Your task to perform on an android device: Clear the shopping cart on walmart.com. Search for usb-c to usb-a on walmart.com, select the first entry, add it to the cart, then select checkout. Image 0: 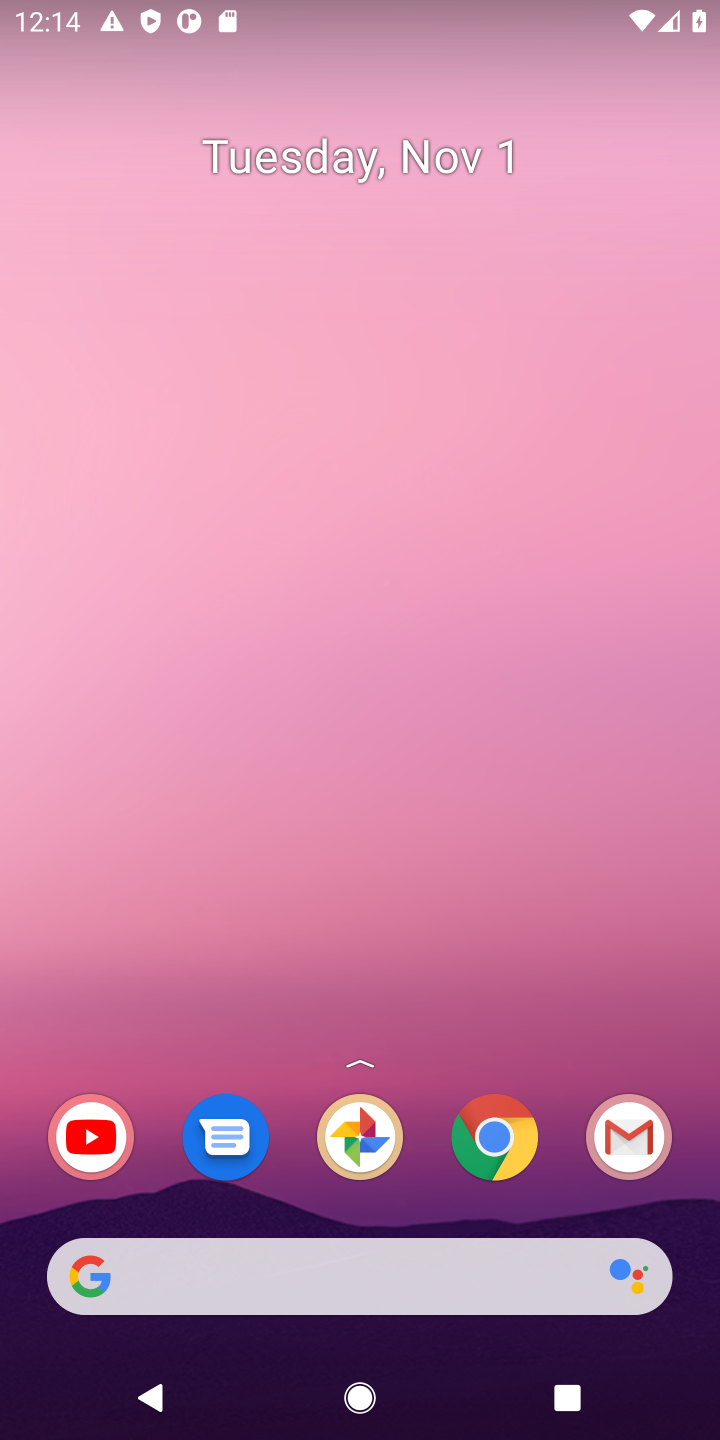
Step 0: click (479, 1129)
Your task to perform on an android device: Clear the shopping cart on walmart.com. Search for usb-c to usb-a on walmart.com, select the first entry, add it to the cart, then select checkout. Image 1: 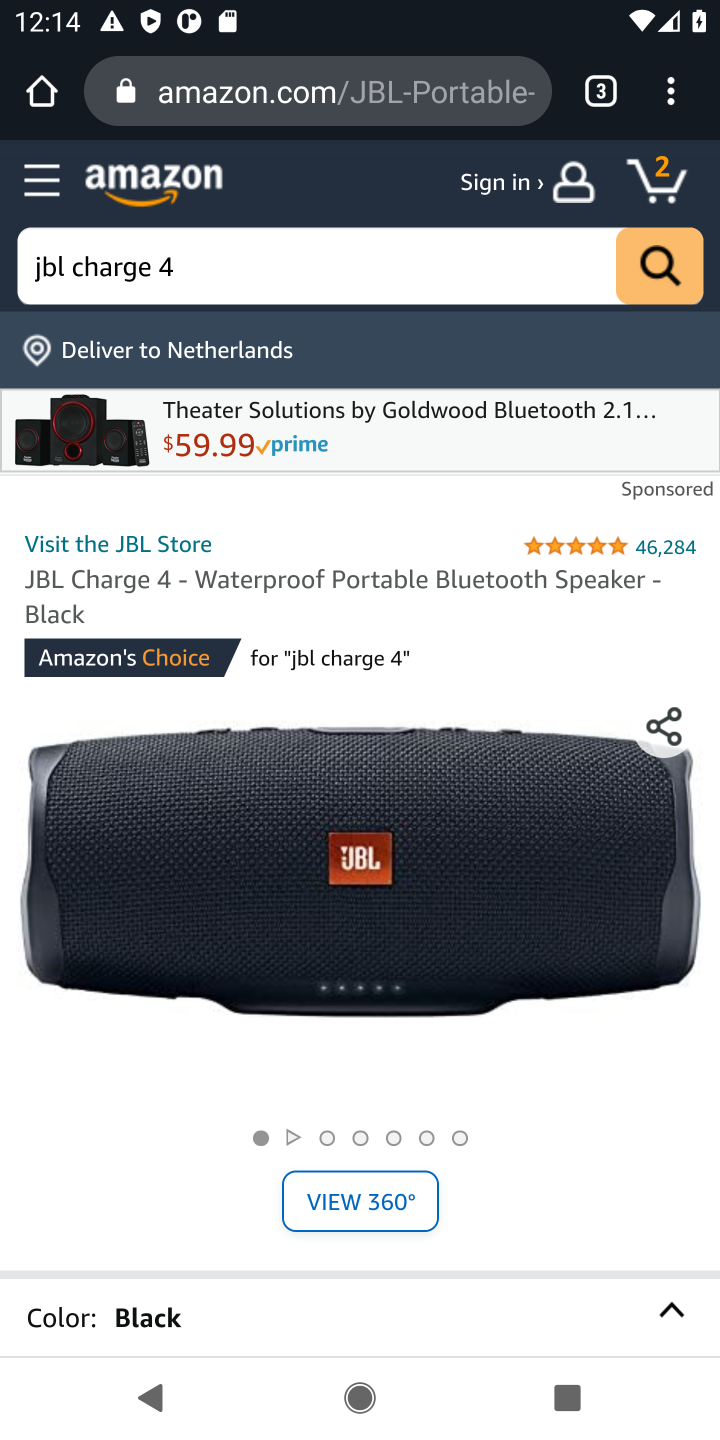
Step 1: click (606, 97)
Your task to perform on an android device: Clear the shopping cart on walmart.com. Search for usb-c to usb-a on walmart.com, select the first entry, add it to the cart, then select checkout. Image 2: 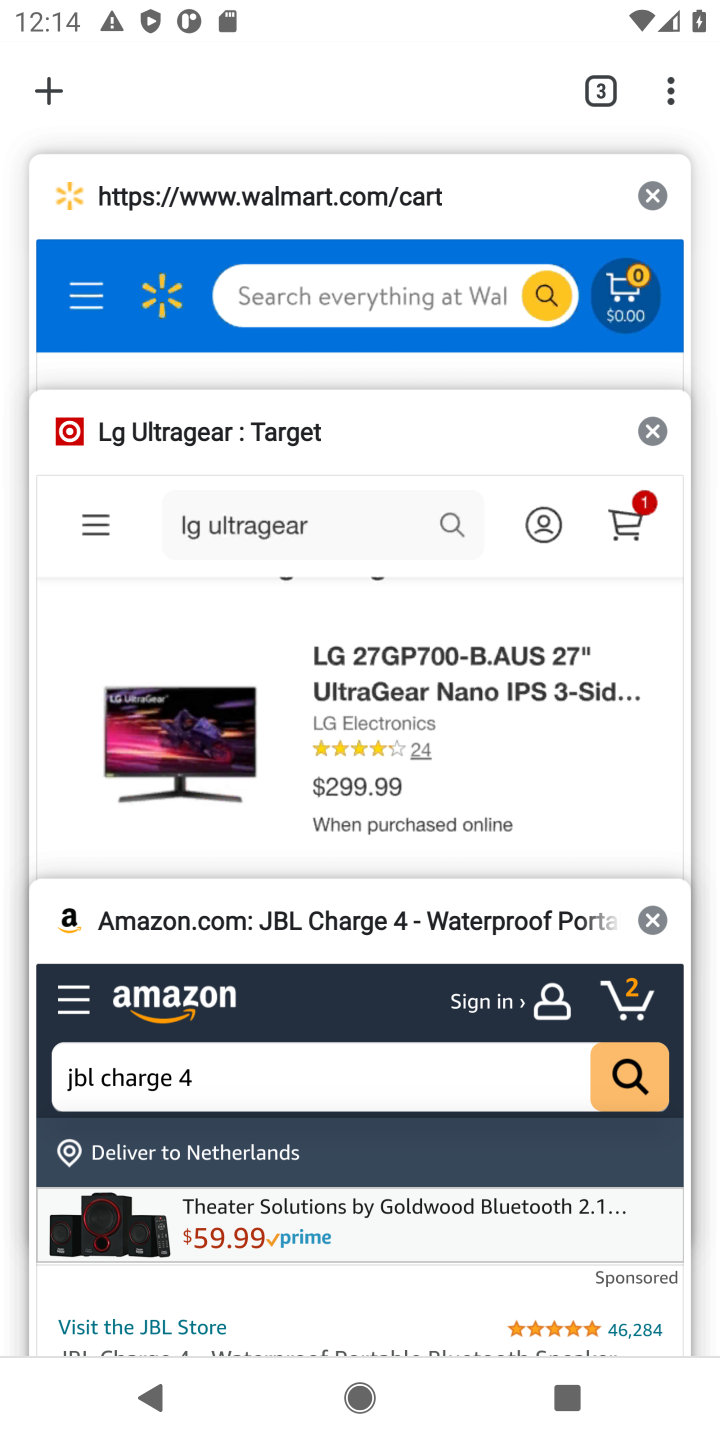
Step 2: click (266, 316)
Your task to perform on an android device: Clear the shopping cart on walmart.com. Search for usb-c to usb-a on walmart.com, select the first entry, add it to the cart, then select checkout. Image 3: 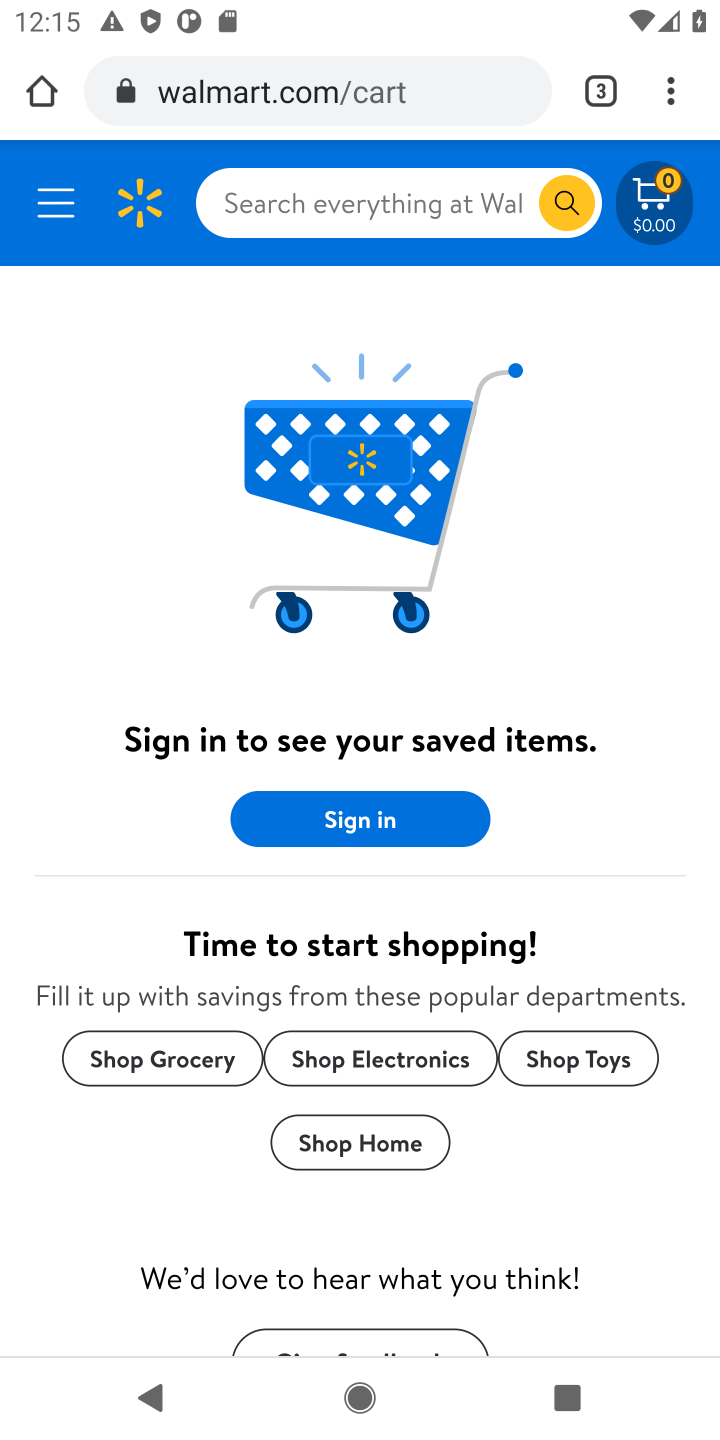
Step 3: click (354, 202)
Your task to perform on an android device: Clear the shopping cart on walmart.com. Search for usb-c to usb-a on walmart.com, select the first entry, add it to the cart, then select checkout. Image 4: 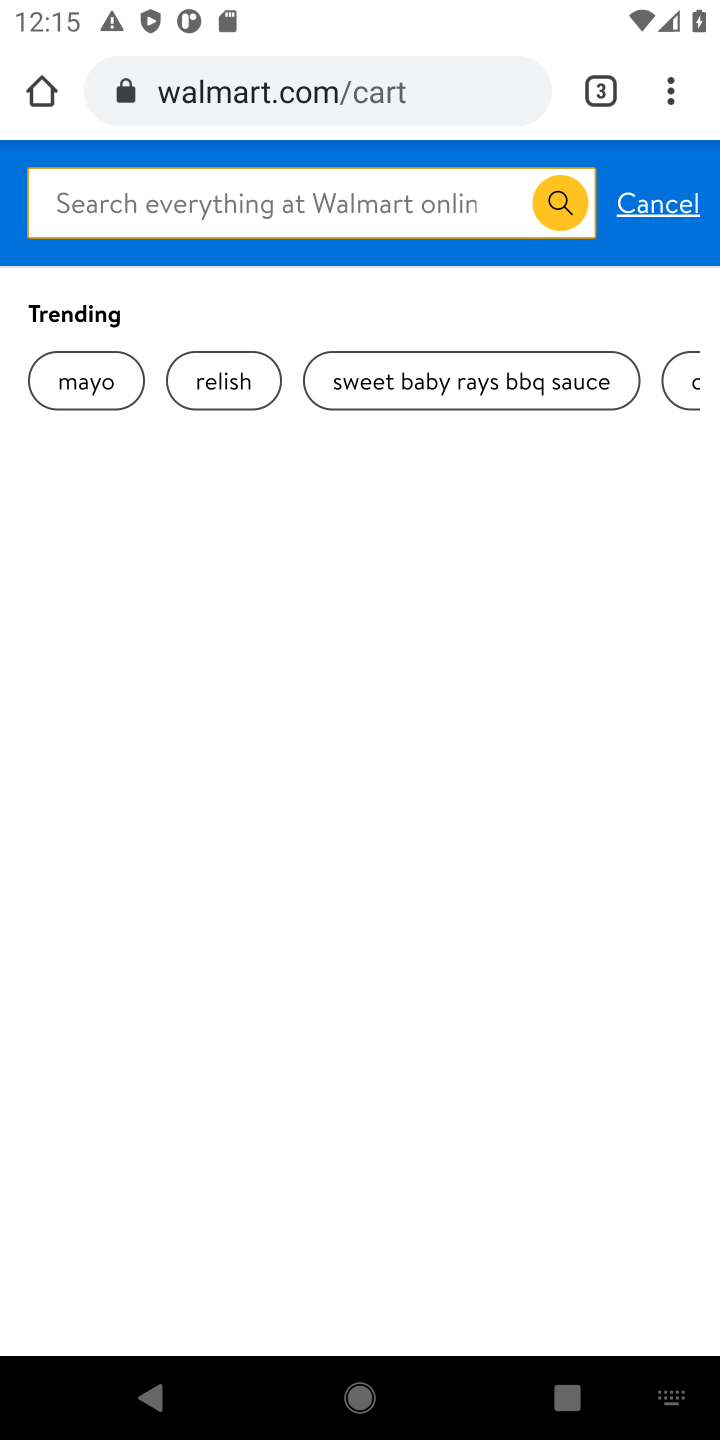
Step 4: type "usb-c usb-a"
Your task to perform on an android device: Clear the shopping cart on walmart.com. Search for usb-c to usb-a on walmart.com, select the first entry, add it to the cart, then select checkout. Image 5: 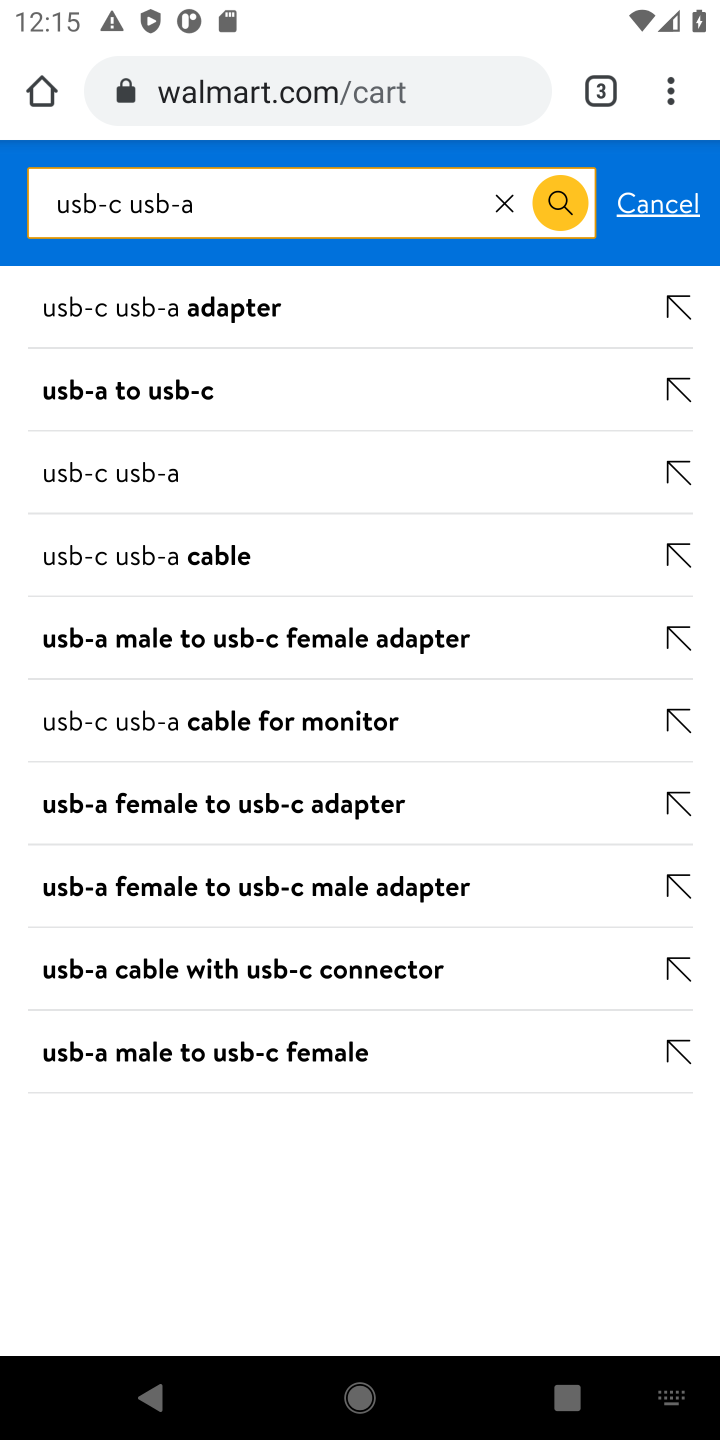
Step 5: click (205, 304)
Your task to perform on an android device: Clear the shopping cart on walmart.com. Search for usb-c to usb-a on walmart.com, select the first entry, add it to the cart, then select checkout. Image 6: 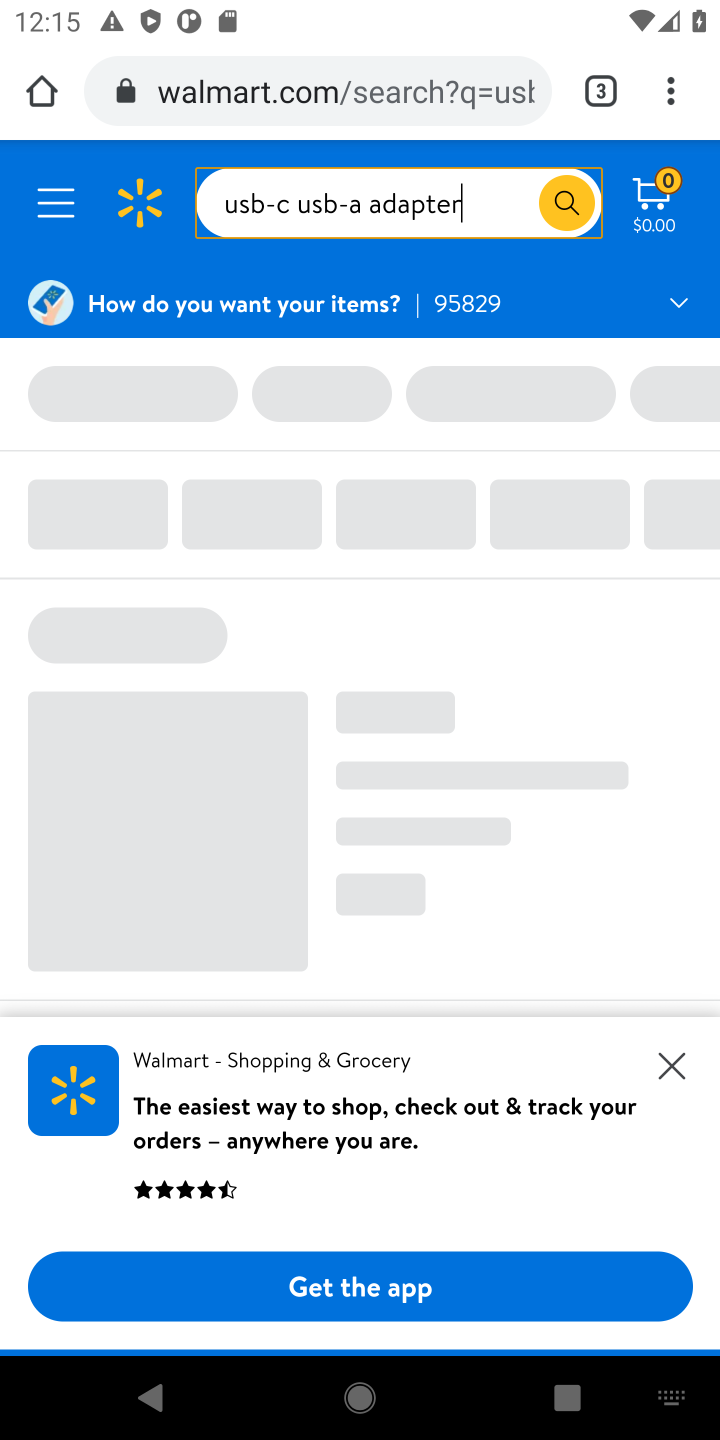
Step 6: click (680, 1064)
Your task to perform on an android device: Clear the shopping cart on walmart.com. Search for usb-c to usb-a on walmart.com, select the first entry, add it to the cart, then select checkout. Image 7: 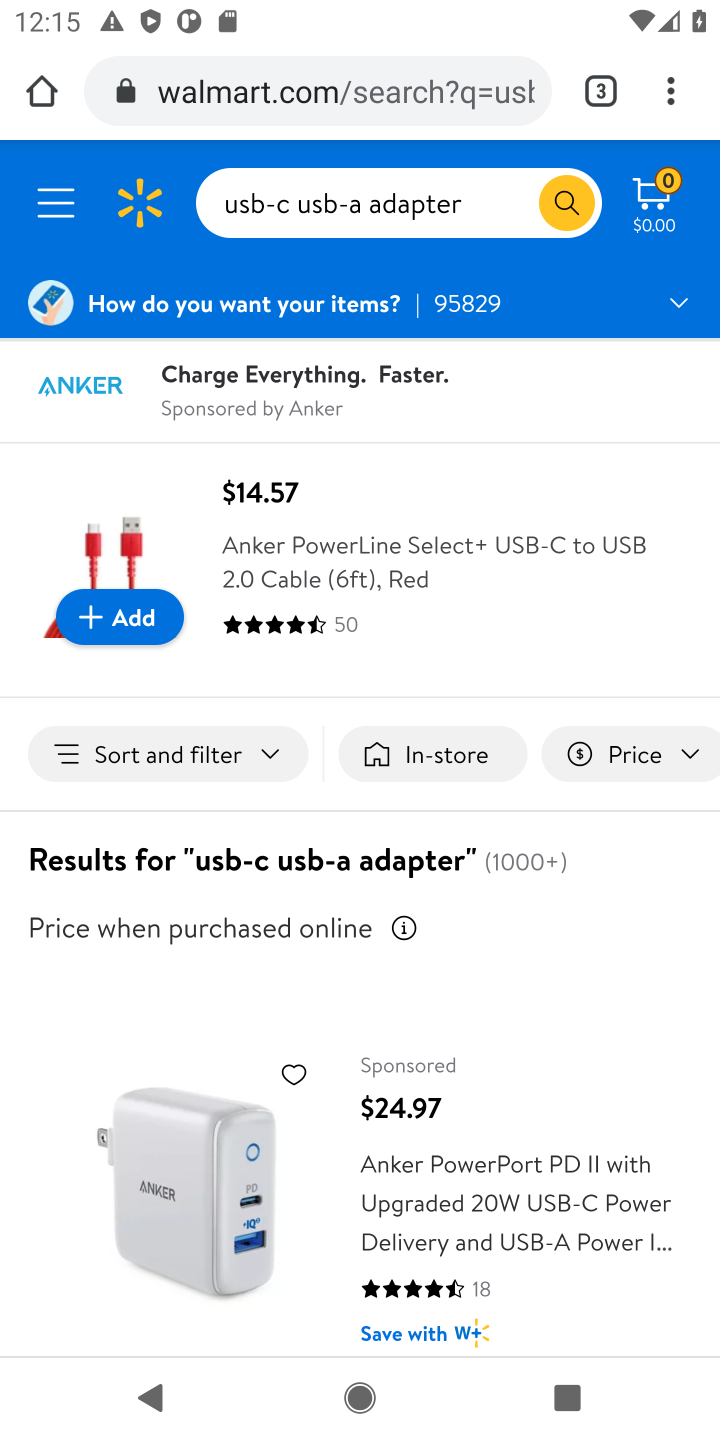
Step 7: click (116, 616)
Your task to perform on an android device: Clear the shopping cart on walmart.com. Search for usb-c to usb-a on walmart.com, select the first entry, add it to the cart, then select checkout. Image 8: 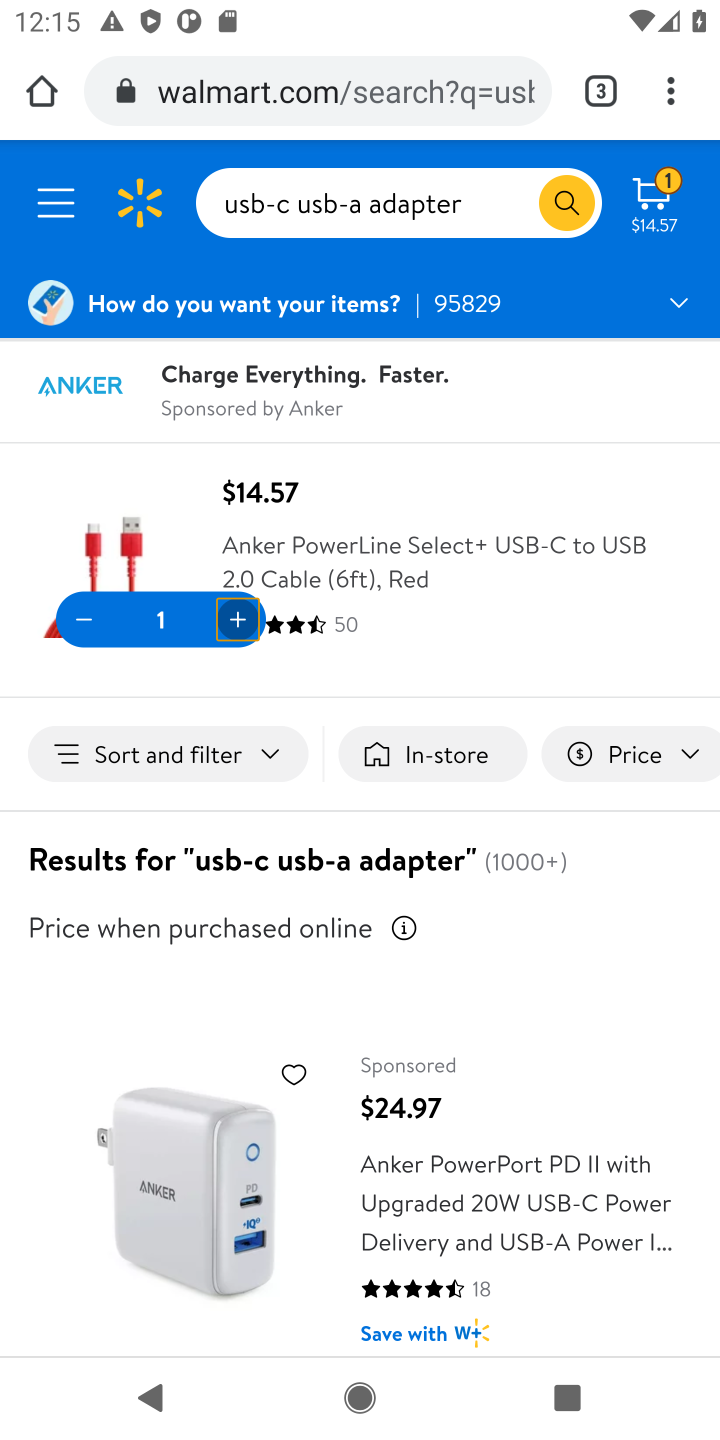
Step 8: task complete